Your task to perform on an android device: View the shopping cart on newegg.com. Search for dell alienware on newegg.com, select the first entry, and add it to the cart. Image 0: 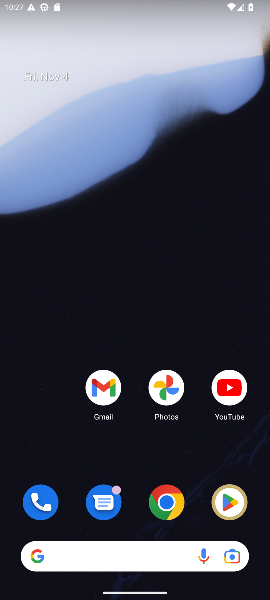
Step 0: drag from (140, 443) to (135, 81)
Your task to perform on an android device: View the shopping cart on newegg.com. Search for dell alienware on newegg.com, select the first entry, and add it to the cart. Image 1: 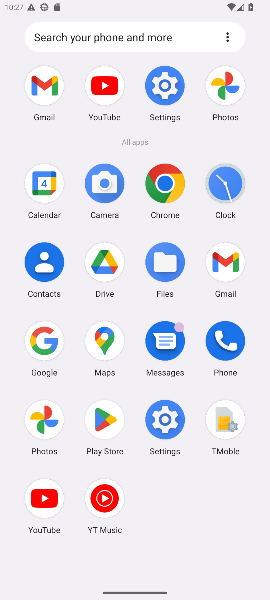
Step 1: click (169, 184)
Your task to perform on an android device: View the shopping cart on newegg.com. Search for dell alienware on newegg.com, select the first entry, and add it to the cart. Image 2: 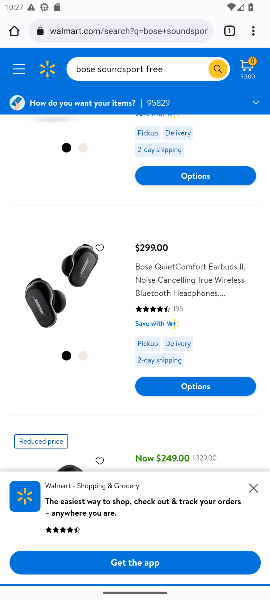
Step 2: click (139, 29)
Your task to perform on an android device: View the shopping cart on newegg.com. Search for dell alienware on newegg.com, select the first entry, and add it to the cart. Image 3: 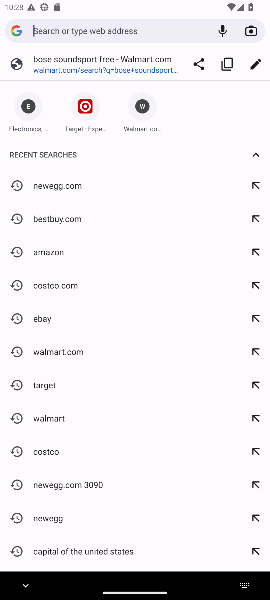
Step 3: type "newegg.com"
Your task to perform on an android device: View the shopping cart on newegg.com. Search for dell alienware on newegg.com, select the first entry, and add it to the cart. Image 4: 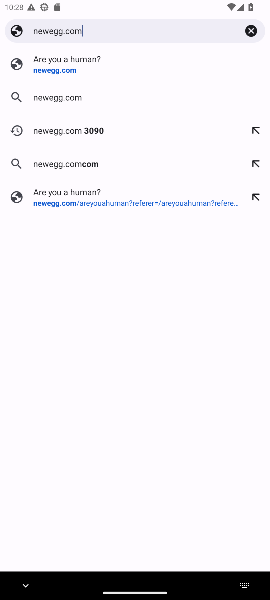
Step 4: press enter
Your task to perform on an android device: View the shopping cart on newegg.com. Search for dell alienware on newegg.com, select the first entry, and add it to the cart. Image 5: 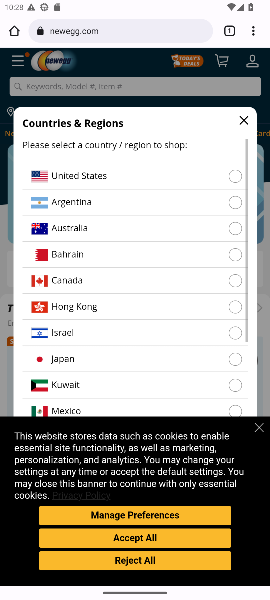
Step 5: click (187, 92)
Your task to perform on an android device: View the shopping cart on newegg.com. Search for dell alienware on newegg.com, select the first entry, and add it to the cart. Image 6: 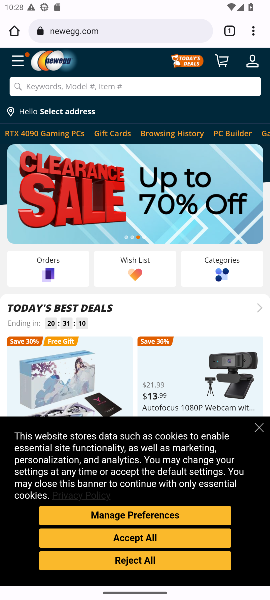
Step 6: click (227, 63)
Your task to perform on an android device: View the shopping cart on newegg.com. Search for dell alienware on newegg.com, select the first entry, and add it to the cart. Image 7: 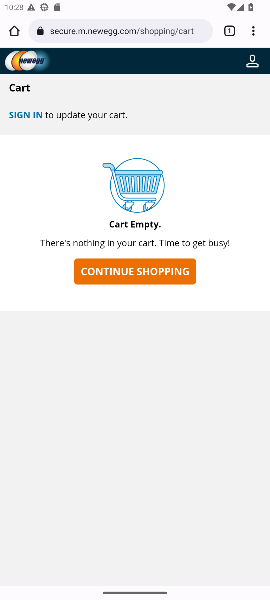
Step 7: click (155, 271)
Your task to perform on an android device: View the shopping cart on newegg.com. Search for dell alienware on newegg.com, select the first entry, and add it to the cart. Image 8: 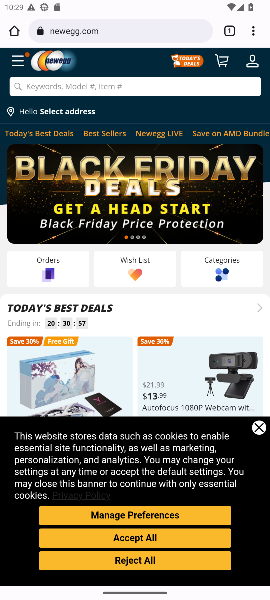
Step 8: click (179, 87)
Your task to perform on an android device: View the shopping cart on newegg.com. Search for dell alienware on newegg.com, select the first entry, and add it to the cart. Image 9: 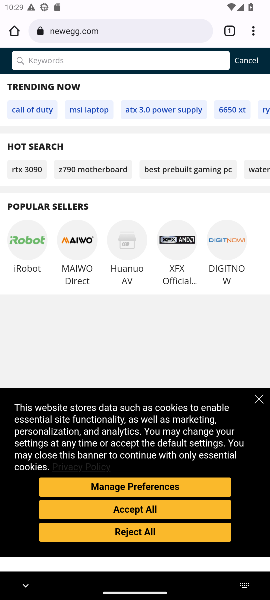
Step 9: type "dell alienware"
Your task to perform on an android device: View the shopping cart on newegg.com. Search for dell alienware on newegg.com, select the first entry, and add it to the cart. Image 10: 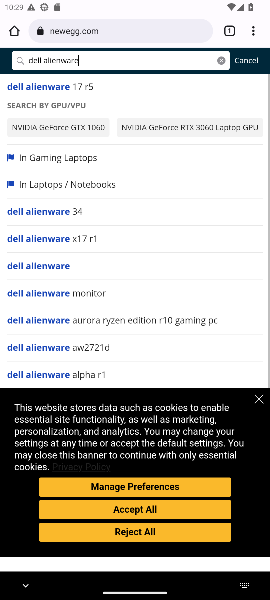
Step 10: press enter
Your task to perform on an android device: View the shopping cart on newegg.com. Search for dell alienware on newegg.com, select the first entry, and add it to the cart. Image 11: 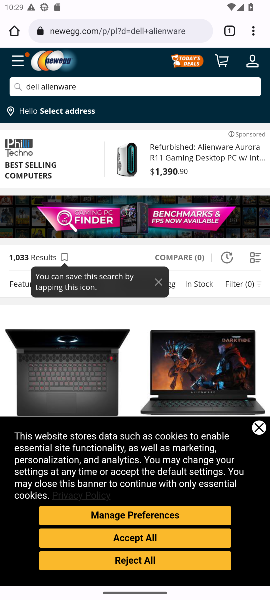
Step 11: drag from (158, 364) to (183, 129)
Your task to perform on an android device: View the shopping cart on newegg.com. Search for dell alienware on newegg.com, select the first entry, and add it to the cart. Image 12: 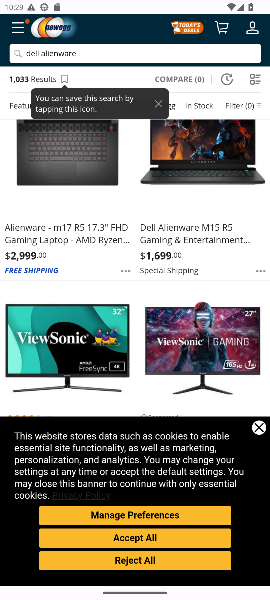
Step 12: drag from (197, 183) to (227, 286)
Your task to perform on an android device: View the shopping cart on newegg.com. Search for dell alienware on newegg.com, select the first entry, and add it to the cart. Image 13: 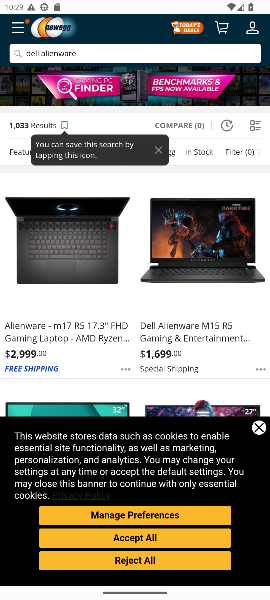
Step 13: click (194, 324)
Your task to perform on an android device: View the shopping cart on newegg.com. Search for dell alienware on newegg.com, select the first entry, and add it to the cart. Image 14: 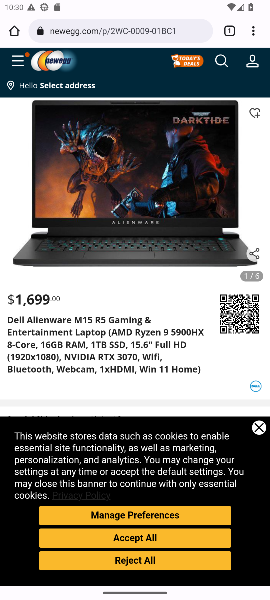
Step 14: drag from (191, 374) to (193, 74)
Your task to perform on an android device: View the shopping cart on newegg.com. Search for dell alienware on newegg.com, select the first entry, and add it to the cart. Image 15: 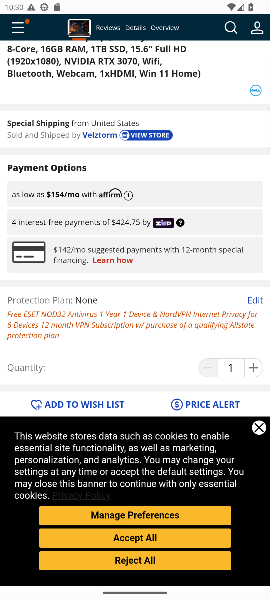
Step 15: click (258, 423)
Your task to perform on an android device: View the shopping cart on newegg.com. Search for dell alienware on newegg.com, select the first entry, and add it to the cart. Image 16: 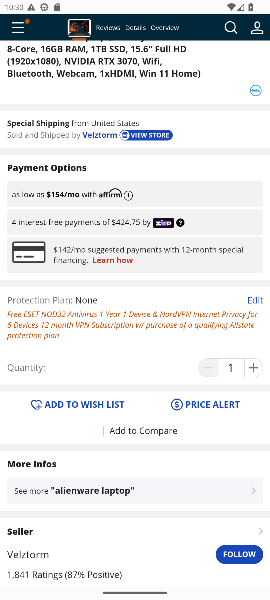
Step 16: drag from (161, 518) to (147, 261)
Your task to perform on an android device: View the shopping cart on newegg.com. Search for dell alienware on newegg.com, select the first entry, and add it to the cart. Image 17: 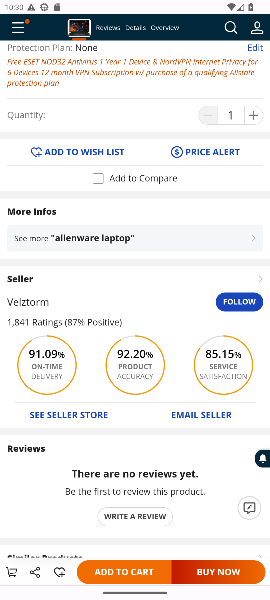
Step 17: click (121, 580)
Your task to perform on an android device: View the shopping cart on newegg.com. Search for dell alienware on newegg.com, select the first entry, and add it to the cart. Image 18: 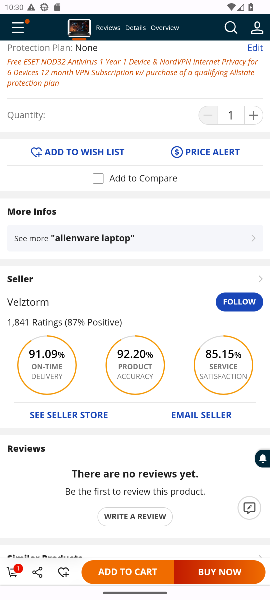
Step 18: click (121, 574)
Your task to perform on an android device: View the shopping cart on newegg.com. Search for dell alienware on newegg.com, select the first entry, and add it to the cart. Image 19: 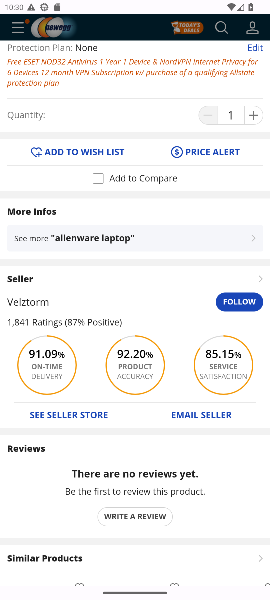
Step 19: task complete